Your task to perform on an android device: Go to Android settings Image 0: 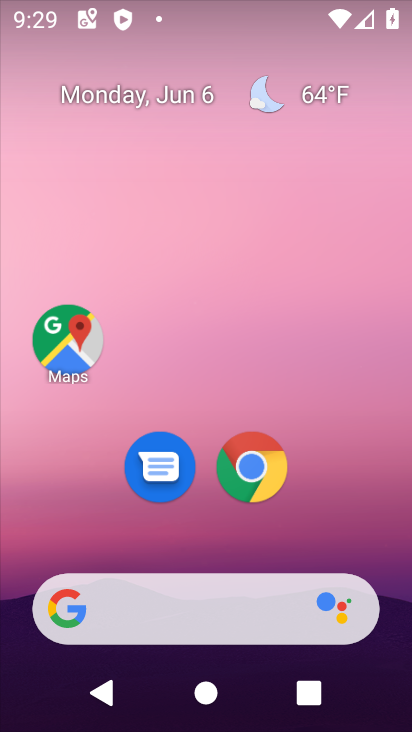
Step 0: drag from (60, 560) to (186, 53)
Your task to perform on an android device: Go to Android settings Image 1: 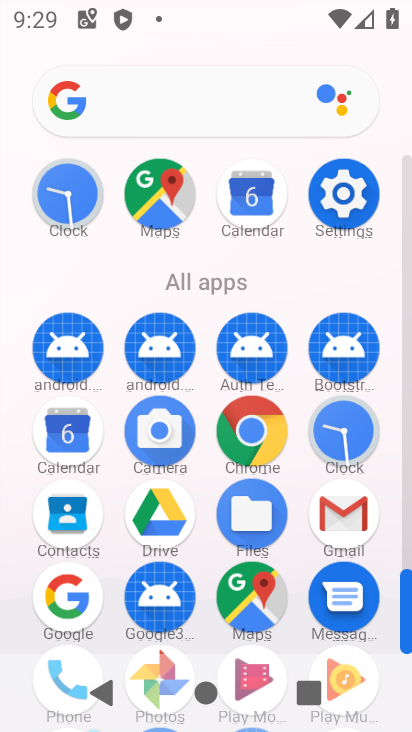
Step 1: drag from (196, 624) to (269, 336)
Your task to perform on an android device: Go to Android settings Image 2: 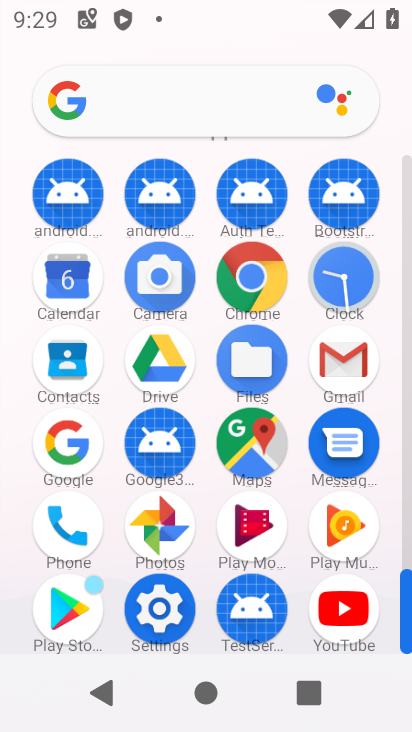
Step 2: click (158, 600)
Your task to perform on an android device: Go to Android settings Image 3: 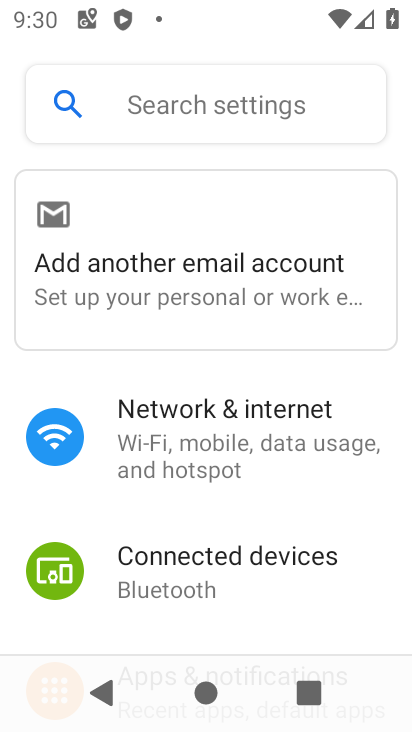
Step 3: task complete